Your task to perform on an android device: Open settings Image 0: 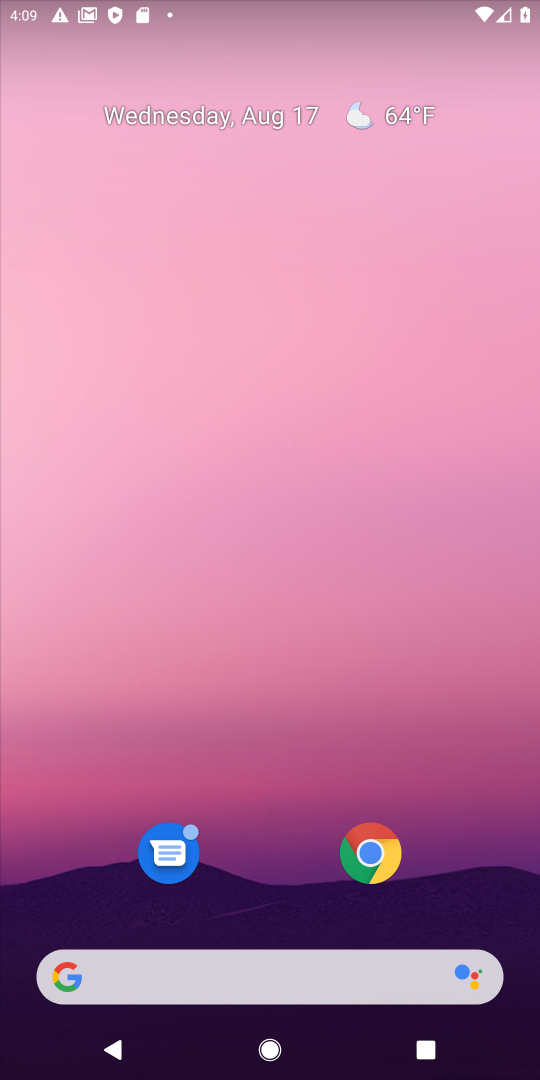
Step 0: drag from (502, 921) to (482, 110)
Your task to perform on an android device: Open settings Image 1: 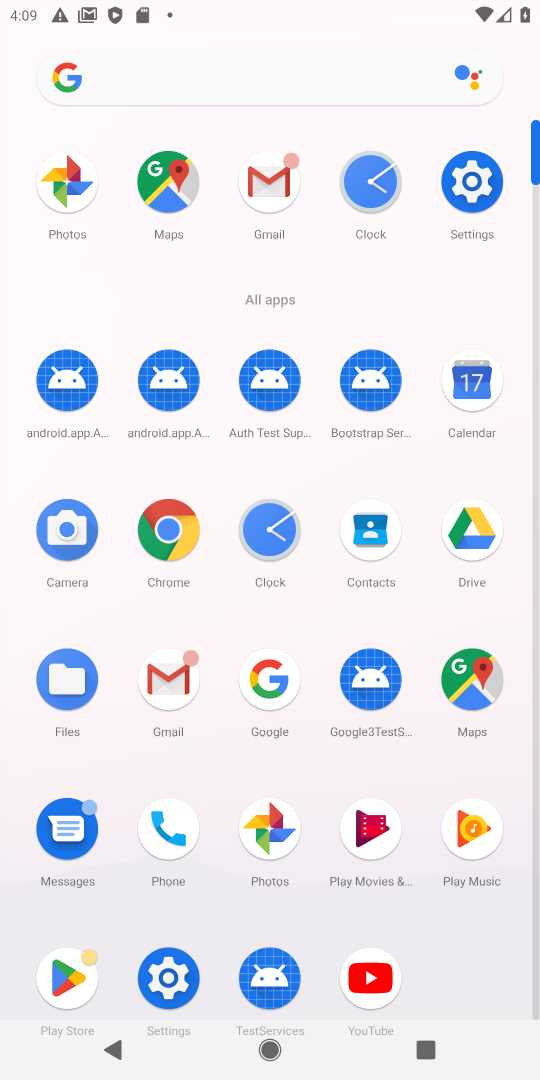
Step 1: click (169, 983)
Your task to perform on an android device: Open settings Image 2: 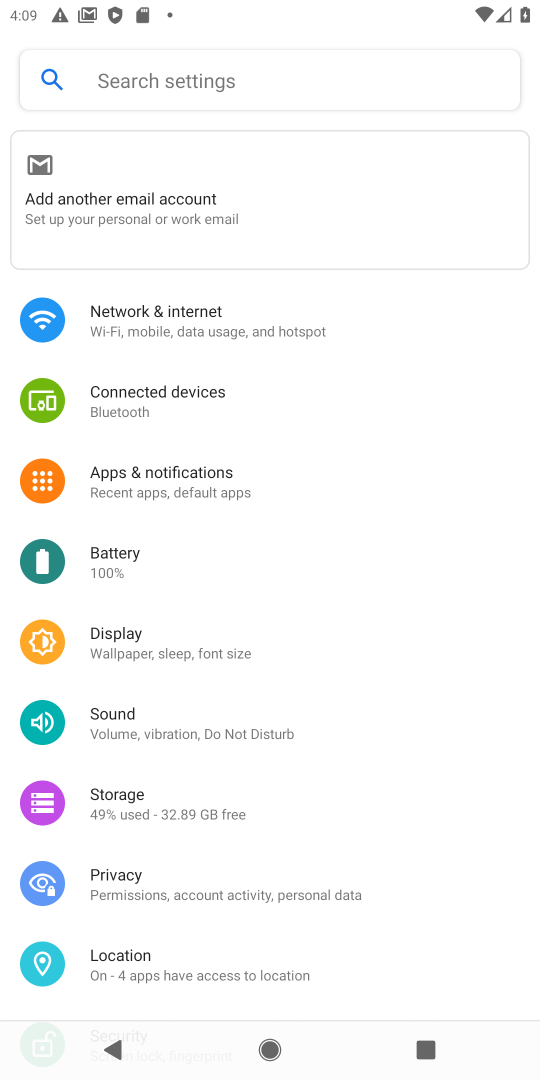
Step 2: task complete